Your task to perform on an android device: Open network settings Image 0: 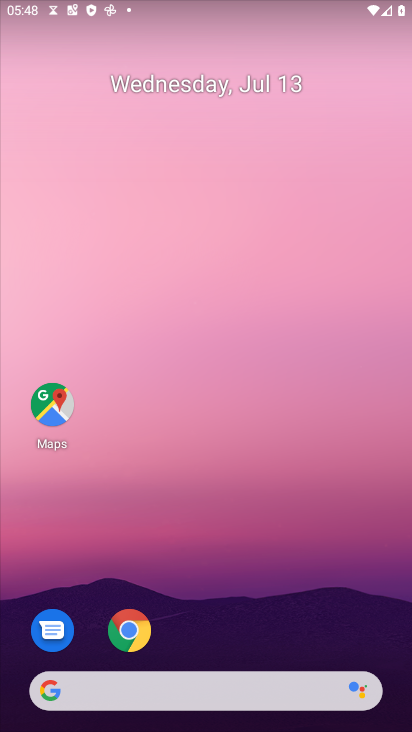
Step 0: drag from (295, 685) to (299, 9)
Your task to perform on an android device: Open network settings Image 1: 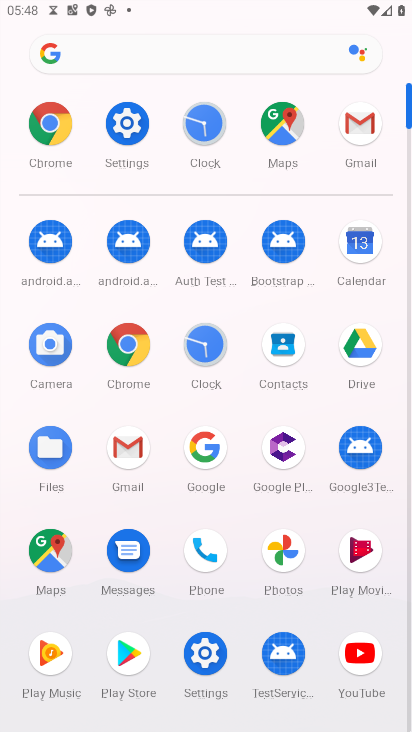
Step 1: click (106, 121)
Your task to perform on an android device: Open network settings Image 2: 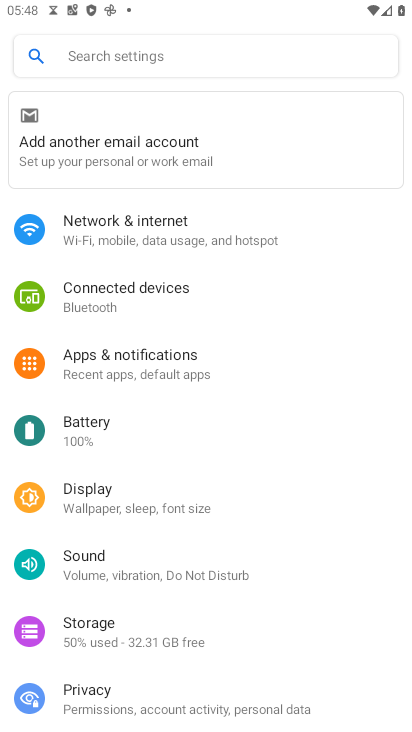
Step 2: click (176, 241)
Your task to perform on an android device: Open network settings Image 3: 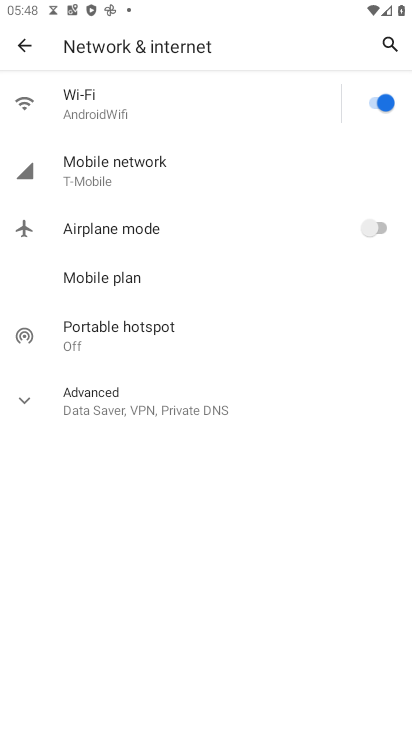
Step 3: task complete